Your task to perform on an android device: open wifi settings Image 0: 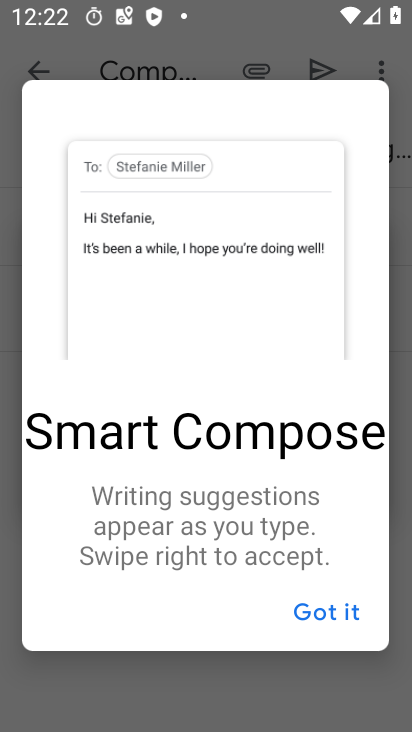
Step 0: click (17, 68)
Your task to perform on an android device: open wifi settings Image 1: 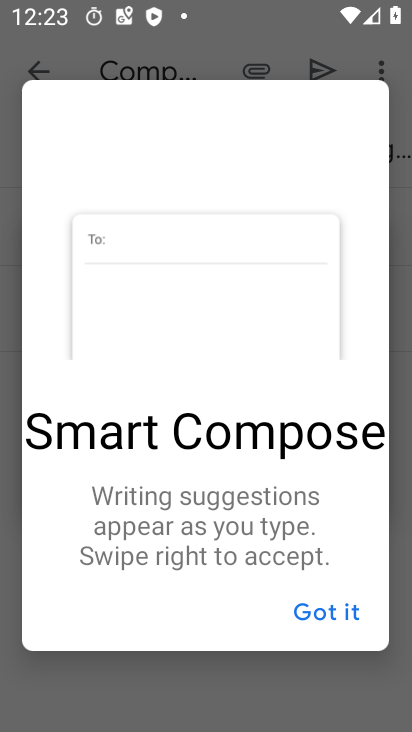
Step 1: click (323, 606)
Your task to perform on an android device: open wifi settings Image 2: 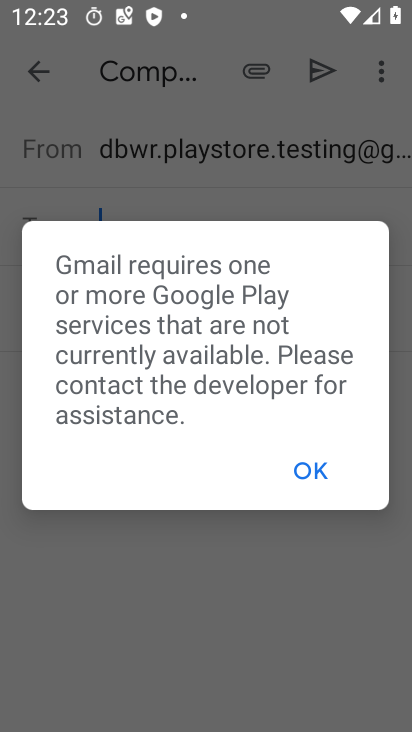
Step 2: click (308, 607)
Your task to perform on an android device: open wifi settings Image 3: 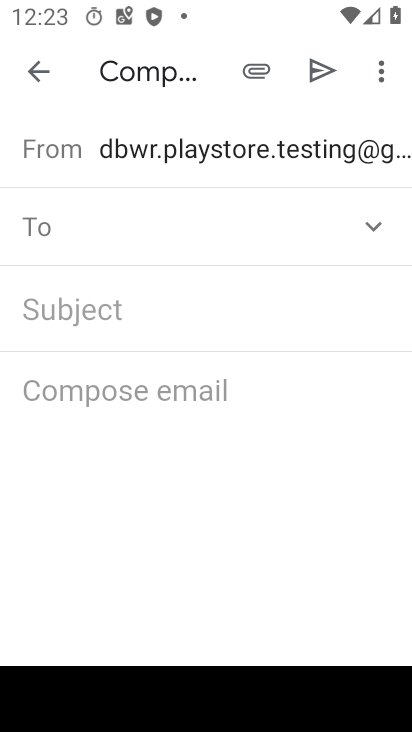
Step 3: press back button
Your task to perform on an android device: open wifi settings Image 4: 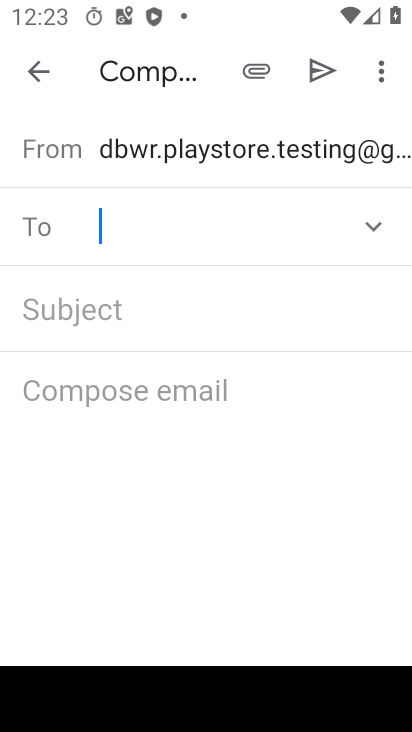
Step 4: press back button
Your task to perform on an android device: open wifi settings Image 5: 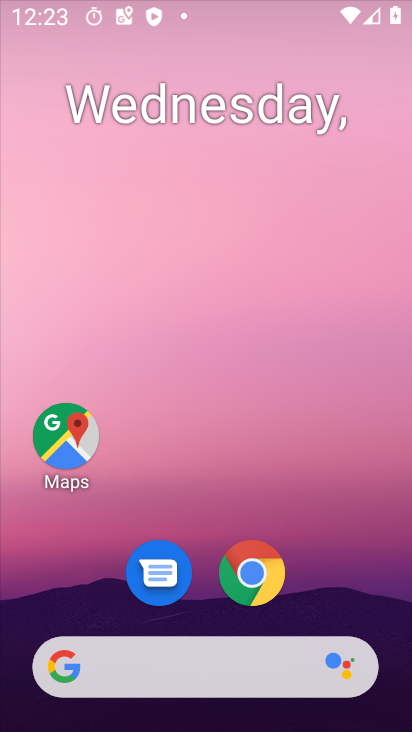
Step 5: click (311, 610)
Your task to perform on an android device: open wifi settings Image 6: 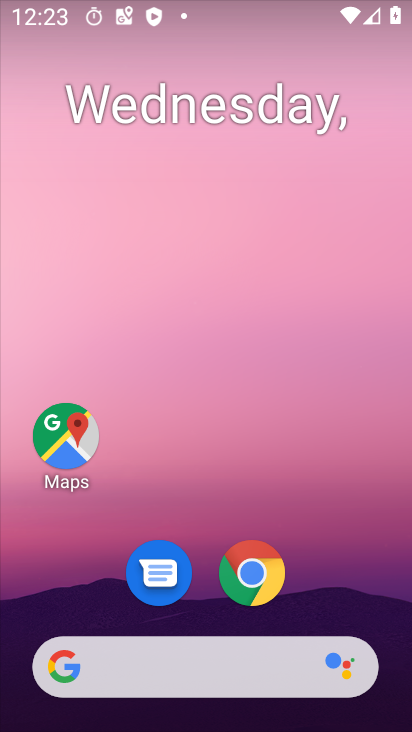
Step 6: click (314, 607)
Your task to perform on an android device: open wifi settings Image 7: 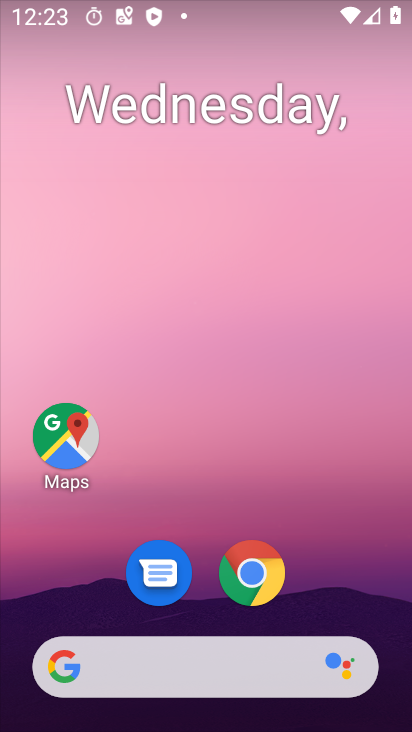
Step 7: click (310, 457)
Your task to perform on an android device: open wifi settings Image 8: 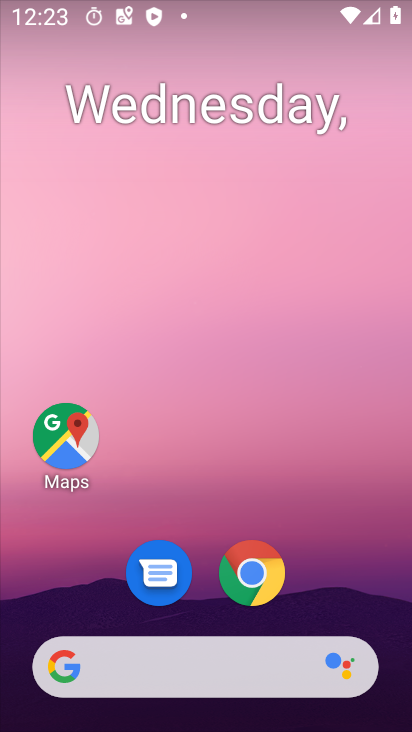
Step 8: click (310, 458)
Your task to perform on an android device: open wifi settings Image 9: 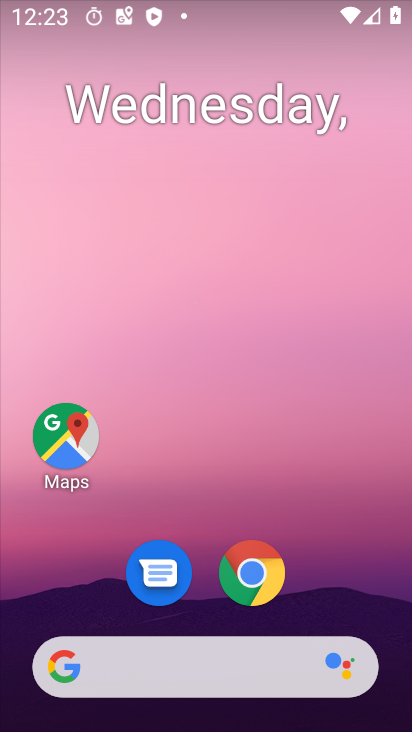
Step 9: drag from (276, 597) to (168, 154)
Your task to perform on an android device: open wifi settings Image 10: 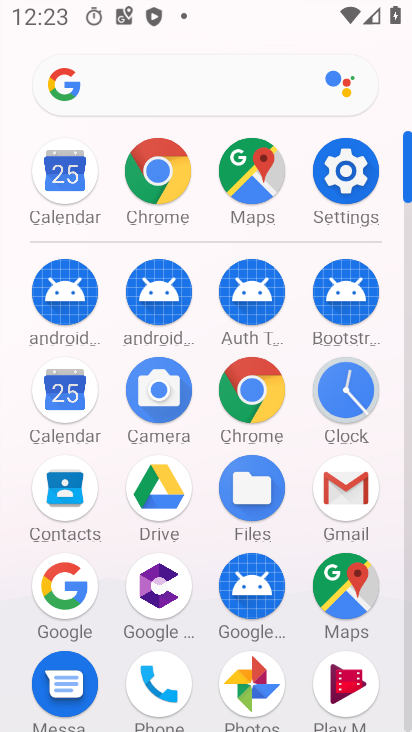
Step 10: drag from (264, 404) to (187, 42)
Your task to perform on an android device: open wifi settings Image 11: 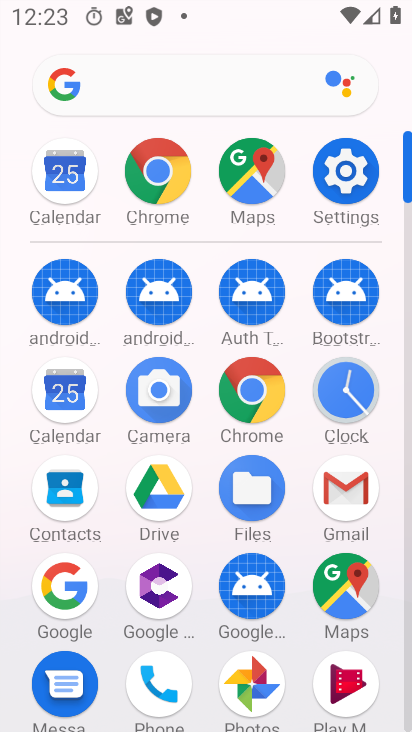
Step 11: drag from (320, 567) to (257, 145)
Your task to perform on an android device: open wifi settings Image 12: 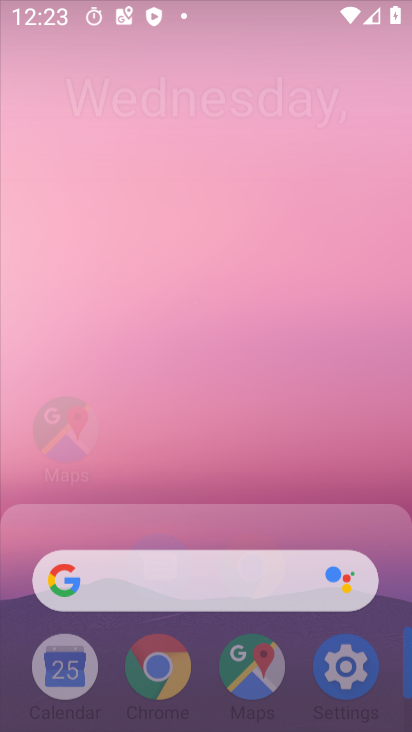
Step 12: drag from (275, 455) to (166, 41)
Your task to perform on an android device: open wifi settings Image 13: 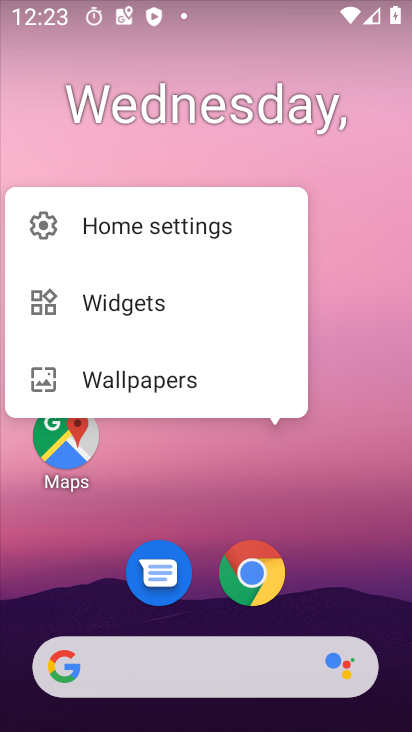
Step 13: click (181, 104)
Your task to perform on an android device: open wifi settings Image 14: 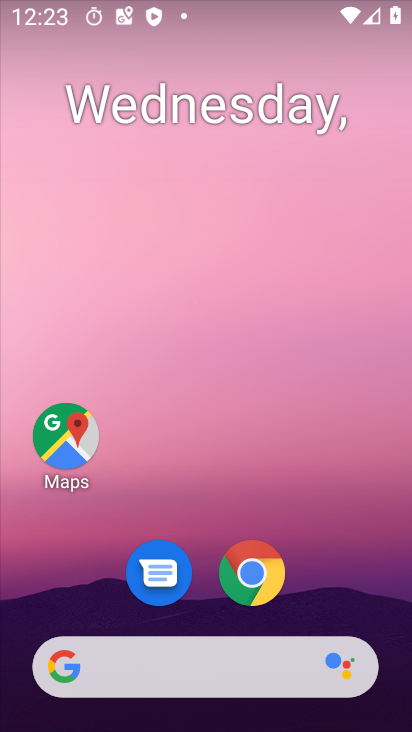
Step 14: click (347, 167)
Your task to perform on an android device: open wifi settings Image 15: 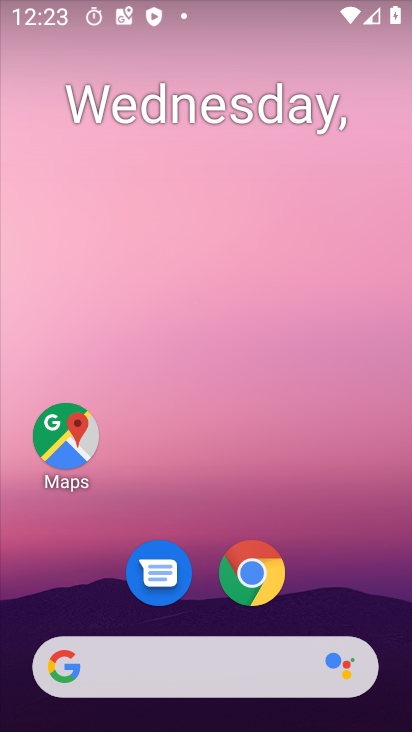
Step 15: click (345, 172)
Your task to perform on an android device: open wifi settings Image 16: 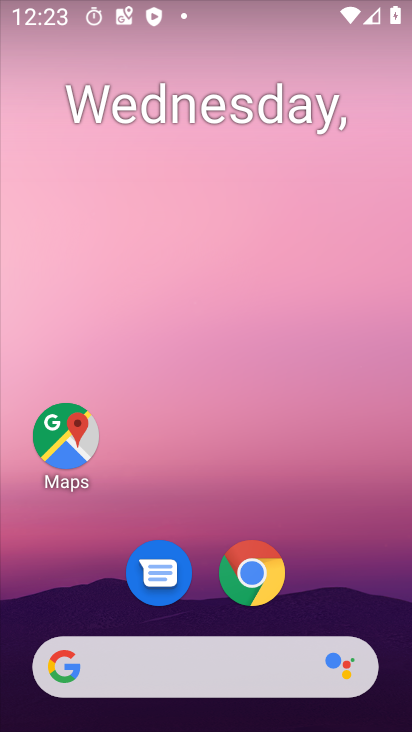
Step 16: click (346, 173)
Your task to perform on an android device: open wifi settings Image 17: 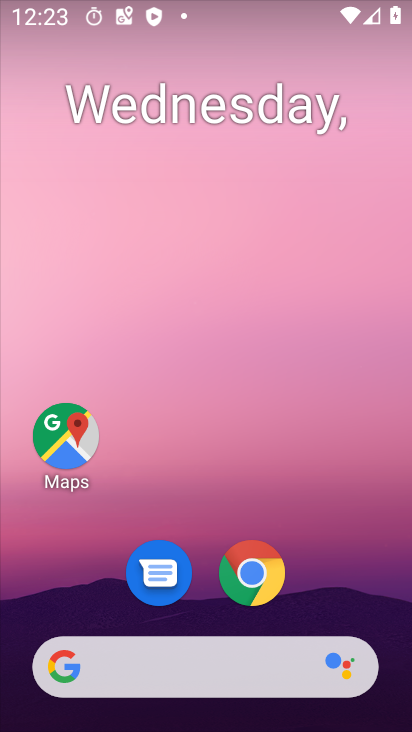
Step 17: click (346, 197)
Your task to perform on an android device: open wifi settings Image 18: 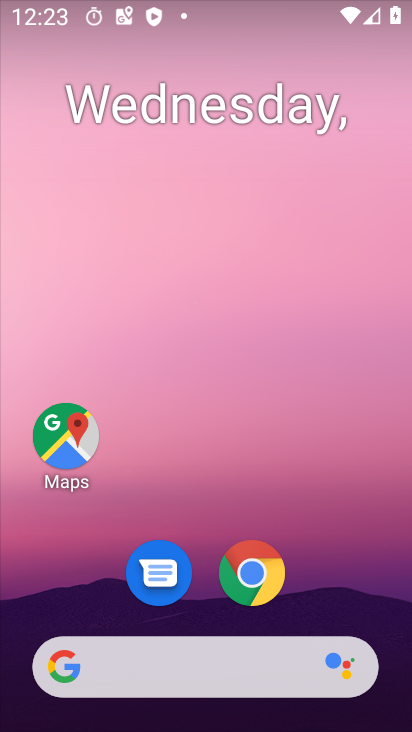
Step 18: drag from (308, 587) to (177, 145)
Your task to perform on an android device: open wifi settings Image 19: 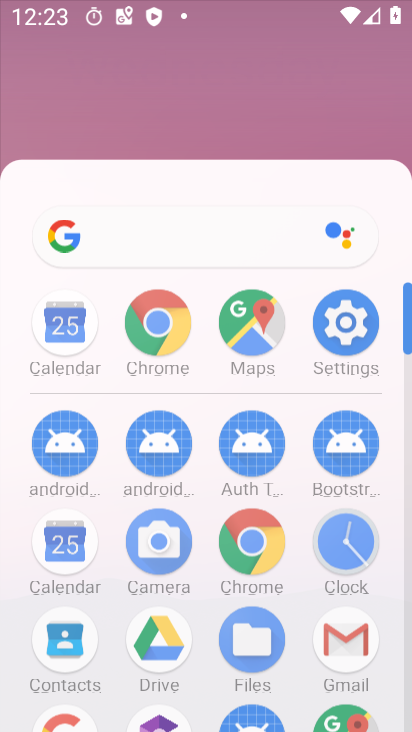
Step 19: drag from (316, 607) to (240, 74)
Your task to perform on an android device: open wifi settings Image 20: 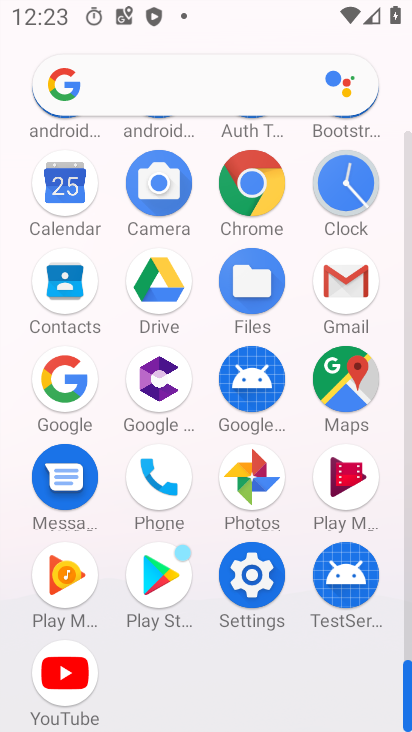
Step 20: click (250, 588)
Your task to perform on an android device: open wifi settings Image 21: 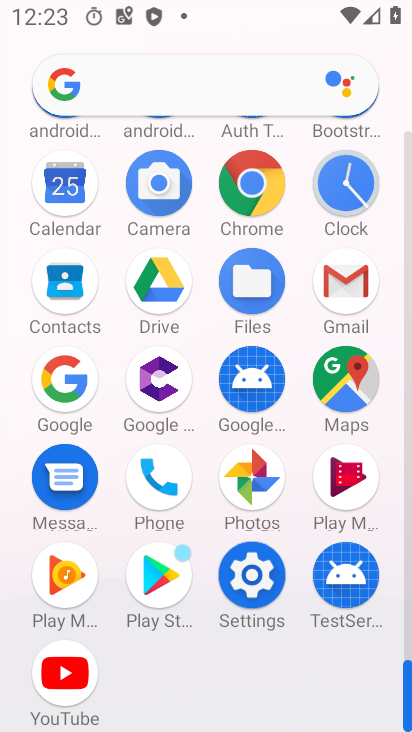
Step 21: click (255, 582)
Your task to perform on an android device: open wifi settings Image 22: 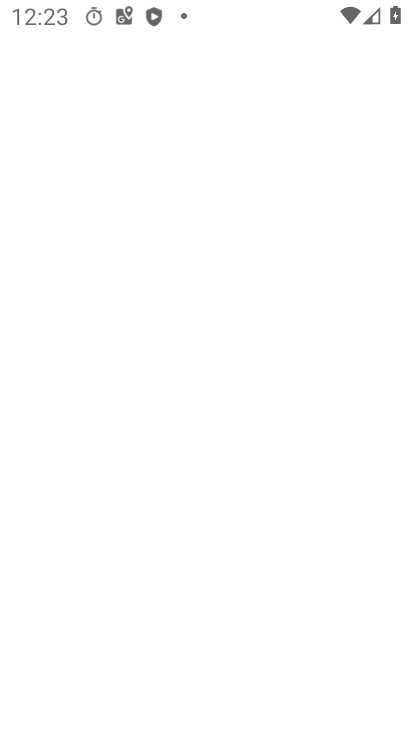
Step 22: click (254, 579)
Your task to perform on an android device: open wifi settings Image 23: 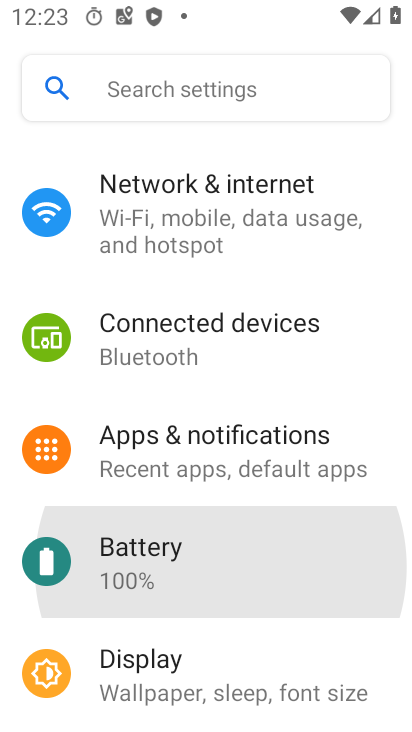
Step 23: click (248, 571)
Your task to perform on an android device: open wifi settings Image 24: 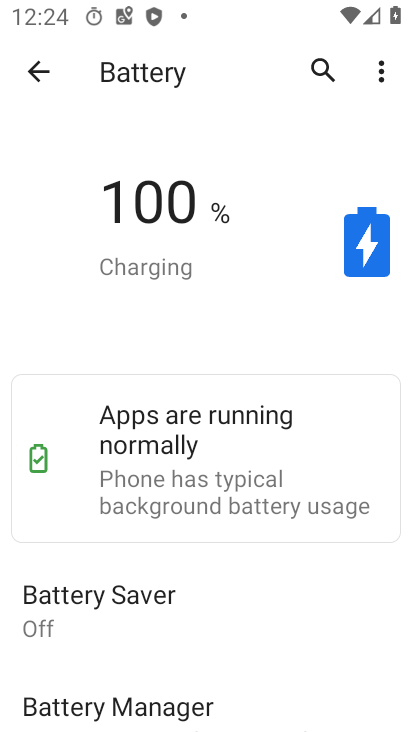
Step 24: click (31, 73)
Your task to perform on an android device: open wifi settings Image 25: 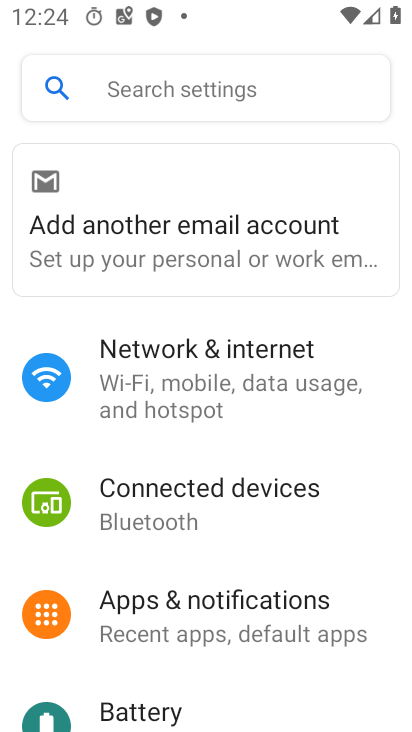
Step 25: drag from (203, 520) to (203, 272)
Your task to perform on an android device: open wifi settings Image 26: 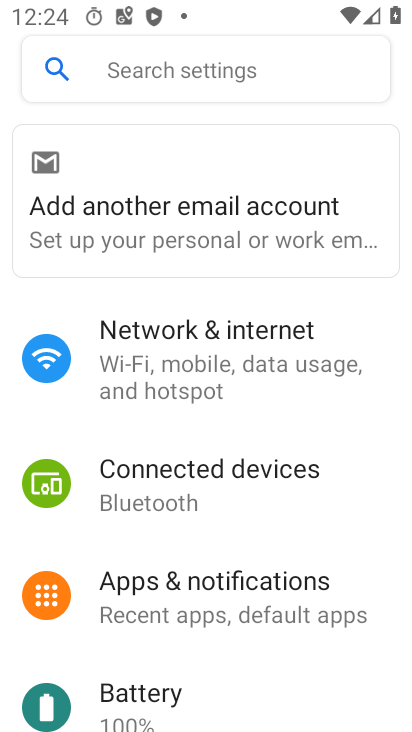
Step 26: click (238, 253)
Your task to perform on an android device: open wifi settings Image 27: 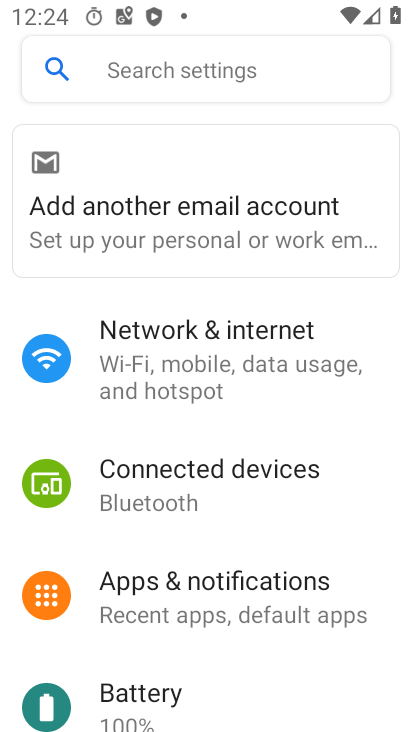
Step 27: click (181, 365)
Your task to perform on an android device: open wifi settings Image 28: 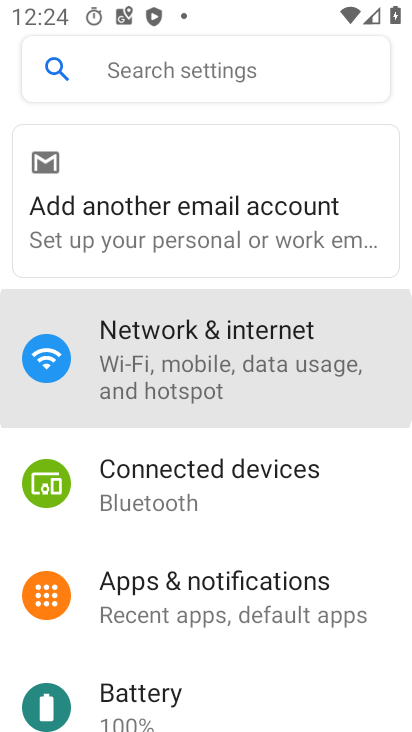
Step 28: click (225, 353)
Your task to perform on an android device: open wifi settings Image 29: 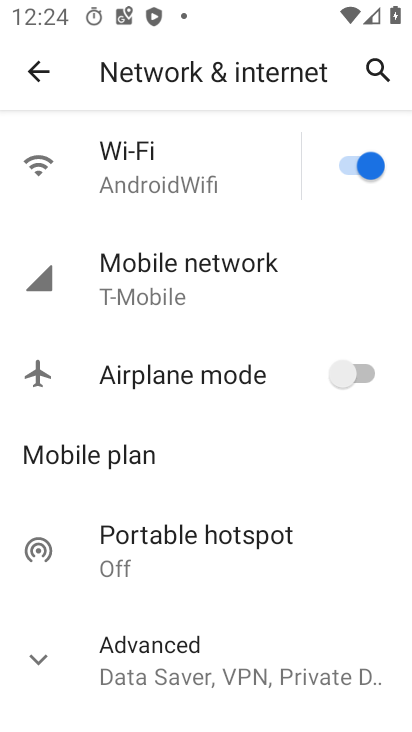
Step 29: task complete